Your task to perform on an android device: Open Google Maps Image 0: 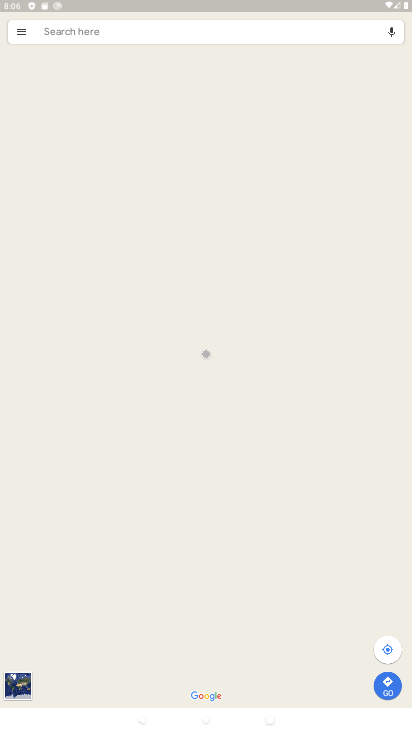
Step 0: task complete